Your task to perform on an android device: see tabs open on other devices in the chrome app Image 0: 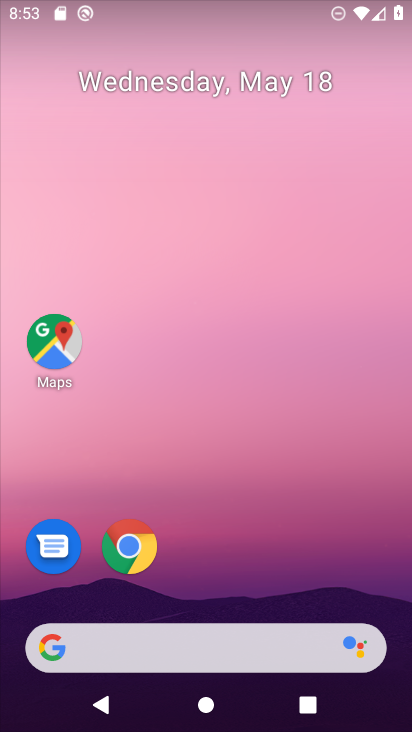
Step 0: drag from (239, 655) to (379, 95)
Your task to perform on an android device: see tabs open on other devices in the chrome app Image 1: 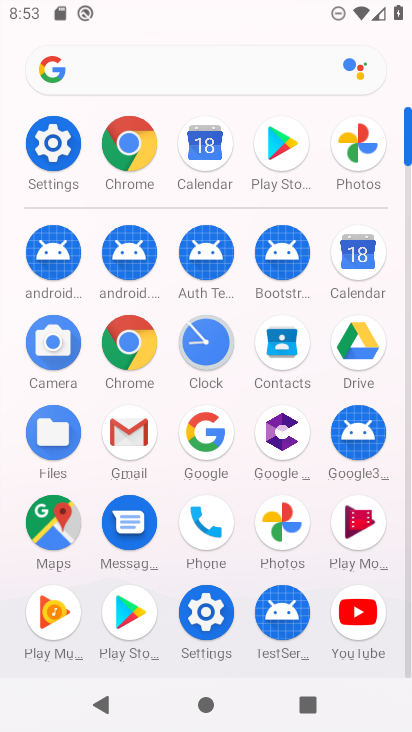
Step 1: click (122, 138)
Your task to perform on an android device: see tabs open on other devices in the chrome app Image 2: 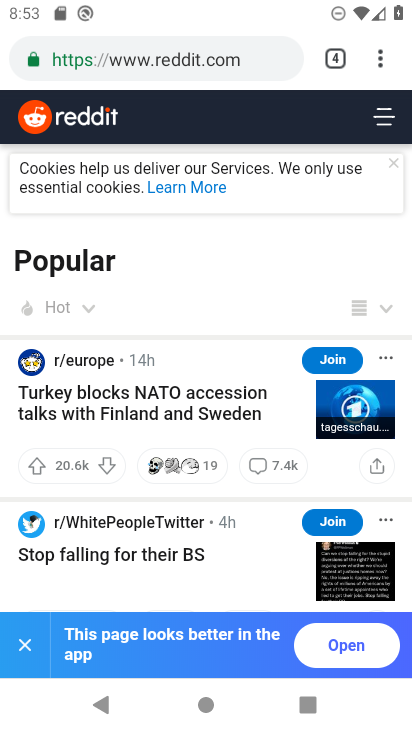
Step 2: click (378, 60)
Your task to perform on an android device: see tabs open on other devices in the chrome app Image 3: 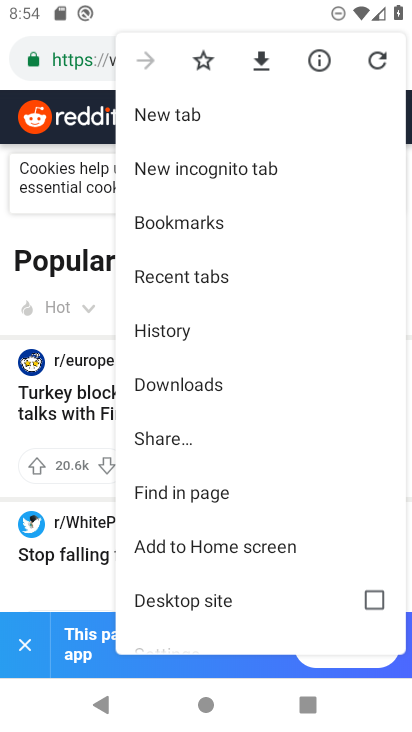
Step 3: click (183, 115)
Your task to perform on an android device: see tabs open on other devices in the chrome app Image 4: 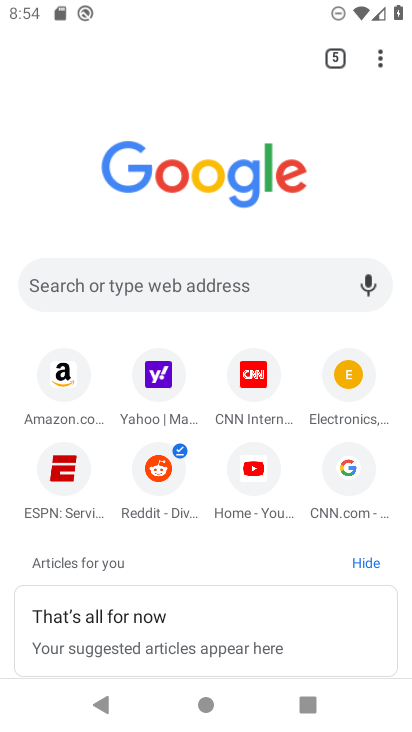
Step 4: task complete